Your task to perform on an android device: Do I have any events tomorrow? Image 0: 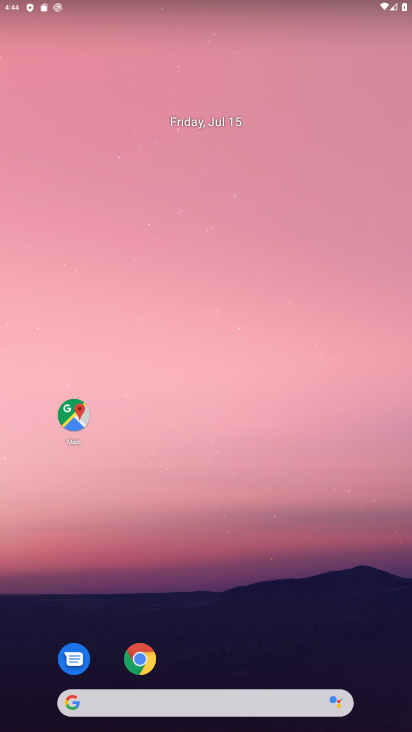
Step 0: click (209, 119)
Your task to perform on an android device: Do I have any events tomorrow? Image 1: 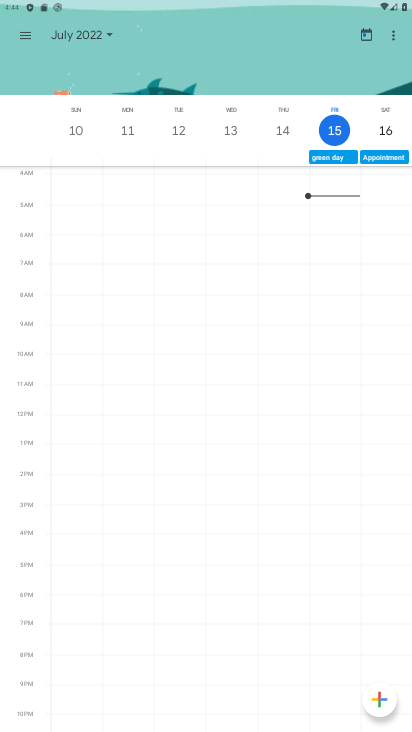
Step 1: task complete